Your task to perform on an android device: Go to sound settings Image 0: 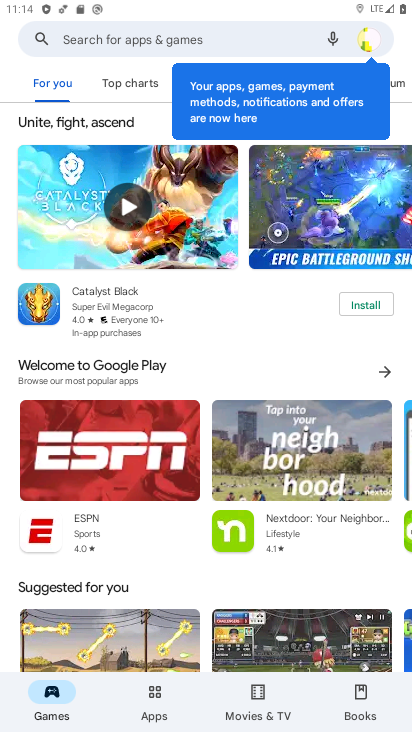
Step 0: press home button
Your task to perform on an android device: Go to sound settings Image 1: 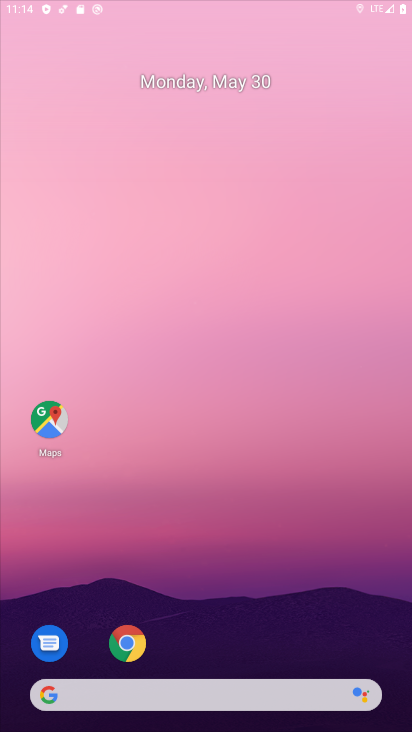
Step 1: drag from (249, 648) to (275, 183)
Your task to perform on an android device: Go to sound settings Image 2: 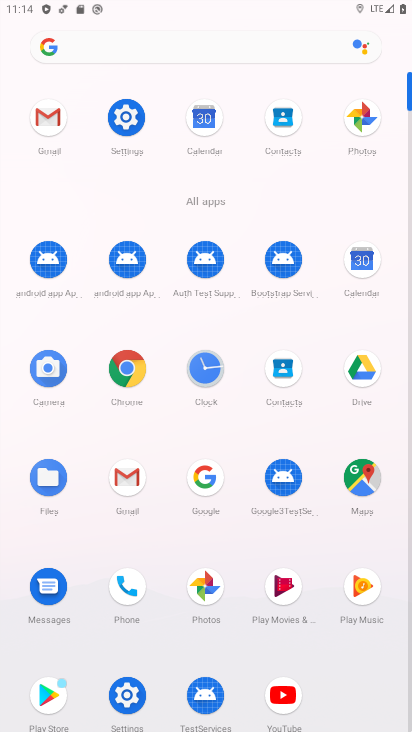
Step 2: click (114, 116)
Your task to perform on an android device: Go to sound settings Image 3: 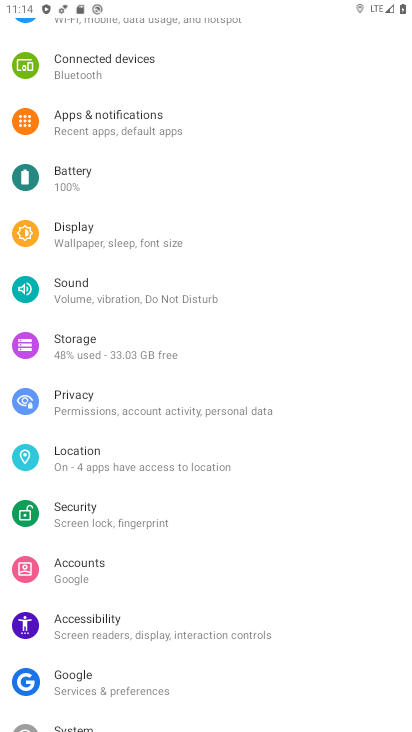
Step 3: click (54, 302)
Your task to perform on an android device: Go to sound settings Image 4: 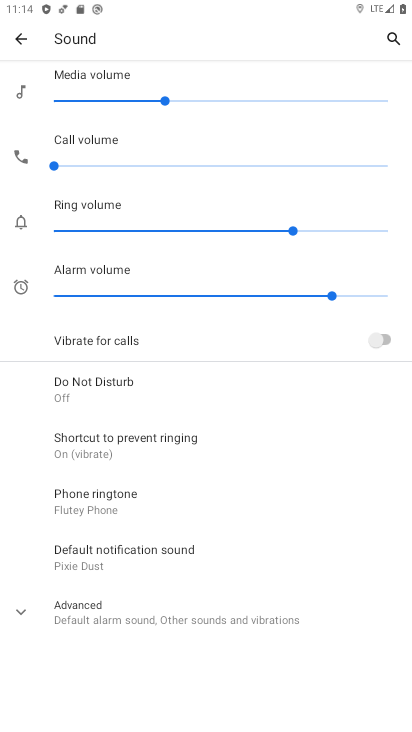
Step 4: task complete